Your task to perform on an android device: add a label to a message in the gmail app Image 0: 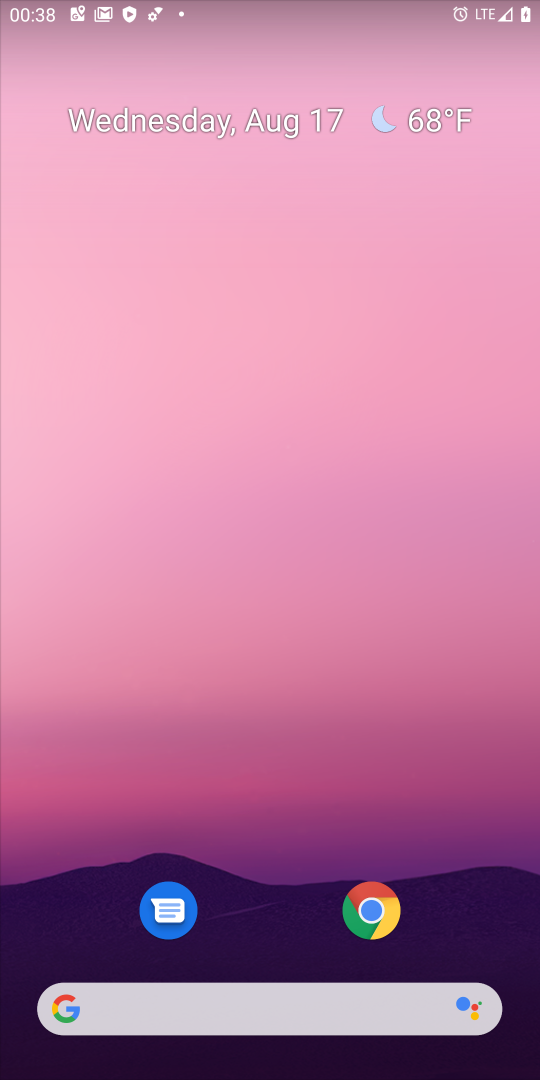
Step 0: drag from (207, 867) to (269, 18)
Your task to perform on an android device: add a label to a message in the gmail app Image 1: 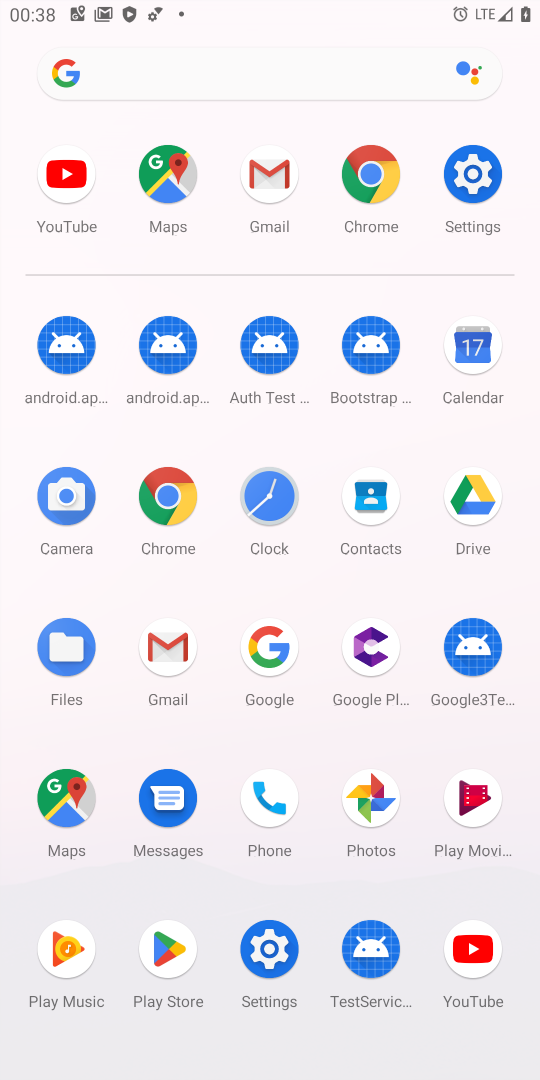
Step 1: click (262, 177)
Your task to perform on an android device: add a label to a message in the gmail app Image 2: 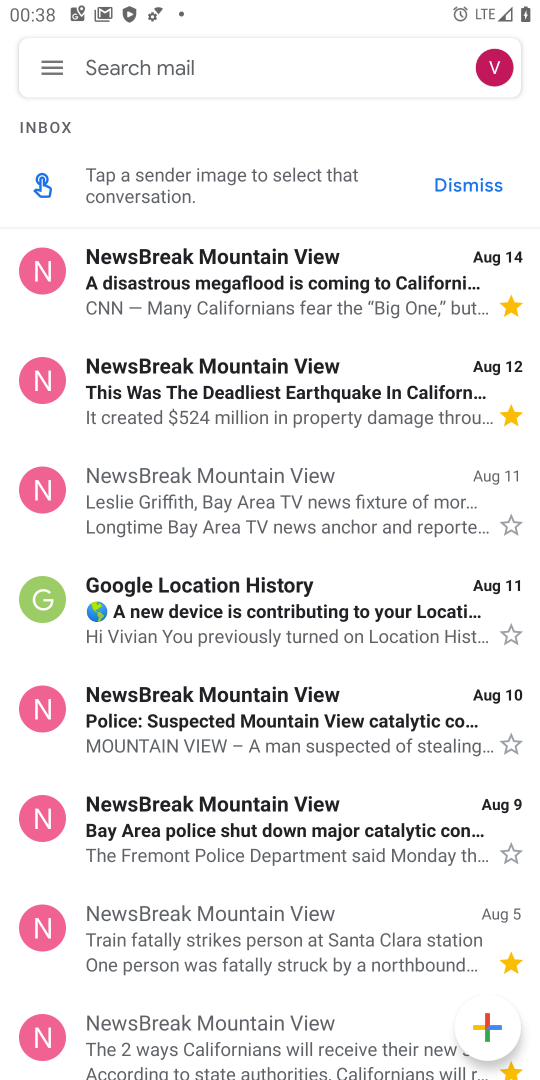
Step 2: click (347, 523)
Your task to perform on an android device: add a label to a message in the gmail app Image 3: 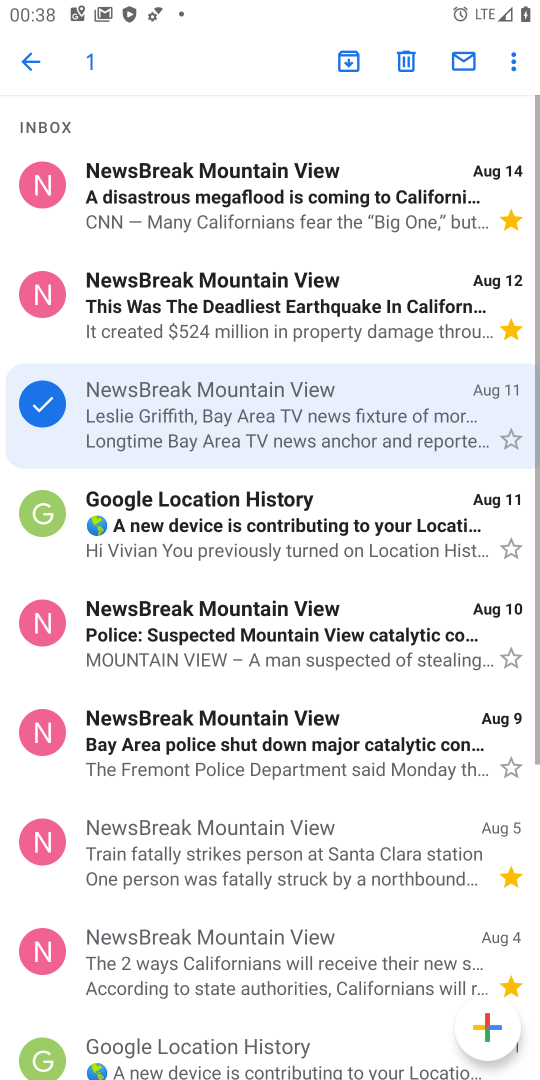
Step 3: click (495, 50)
Your task to perform on an android device: add a label to a message in the gmail app Image 4: 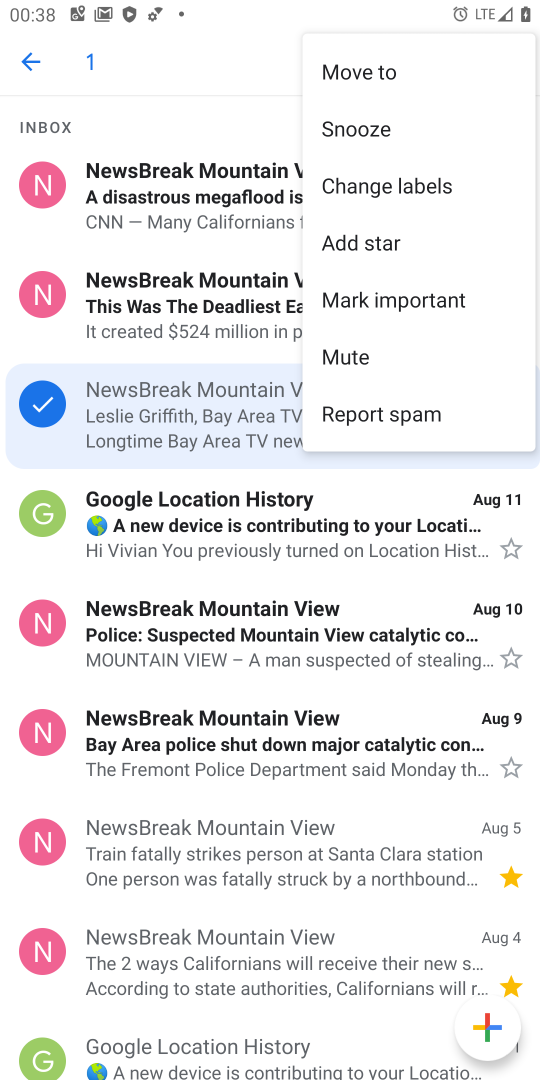
Step 4: task complete